Your task to perform on an android device: turn off wifi Image 0: 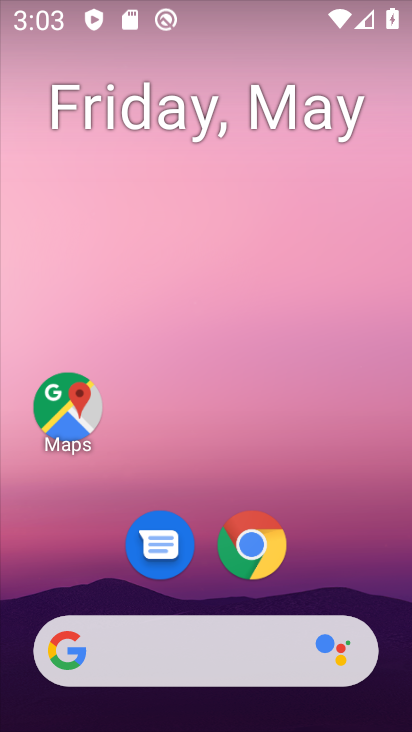
Step 0: drag from (330, 526) to (305, 62)
Your task to perform on an android device: turn off wifi Image 1: 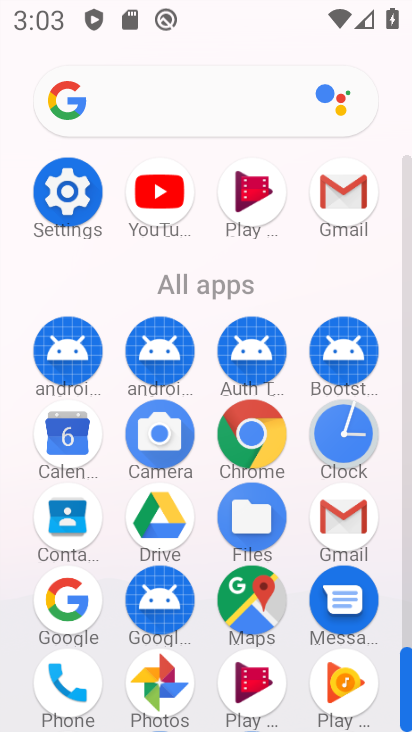
Step 1: click (56, 200)
Your task to perform on an android device: turn off wifi Image 2: 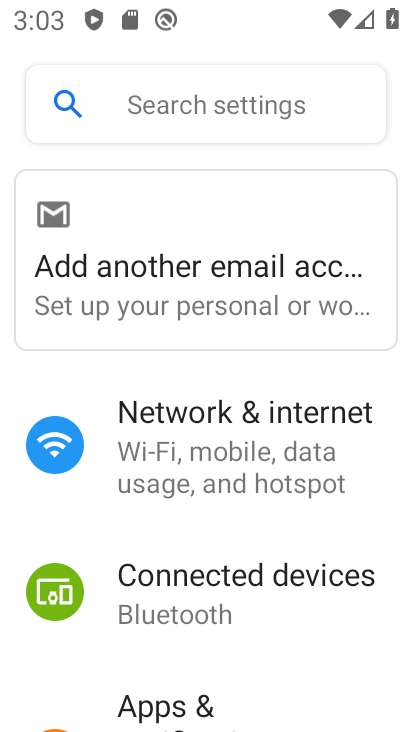
Step 2: click (275, 439)
Your task to perform on an android device: turn off wifi Image 3: 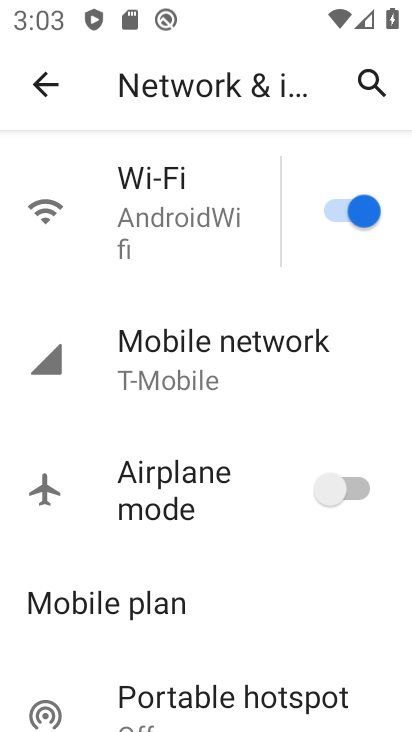
Step 3: click (359, 215)
Your task to perform on an android device: turn off wifi Image 4: 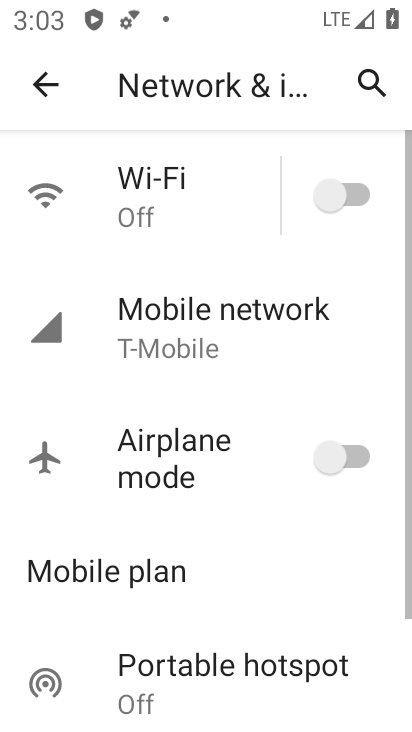
Step 4: task complete